Your task to perform on an android device: Do I have any events today? Image 0: 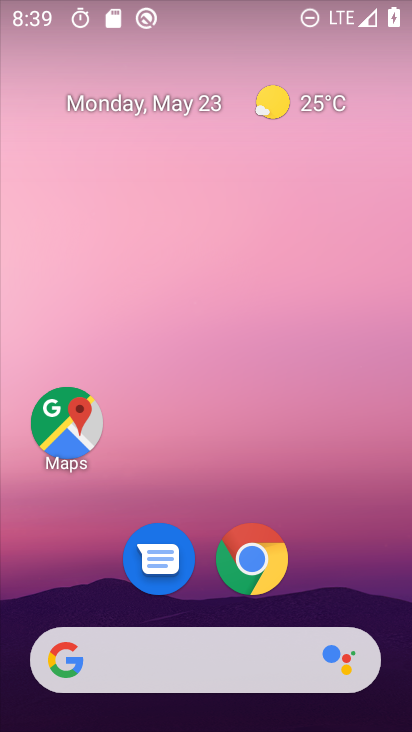
Step 0: drag from (384, 624) to (299, 68)
Your task to perform on an android device: Do I have any events today? Image 1: 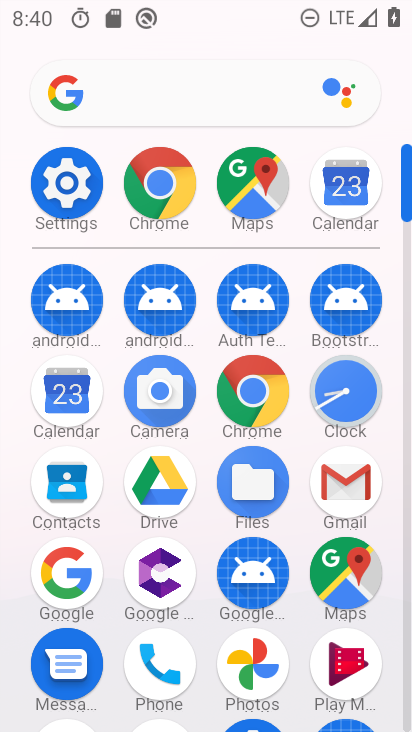
Step 1: click (49, 414)
Your task to perform on an android device: Do I have any events today? Image 2: 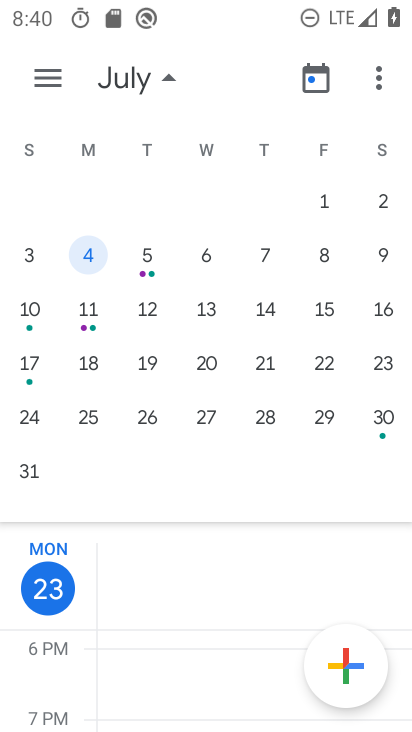
Step 2: drag from (83, 342) to (408, 430)
Your task to perform on an android device: Do I have any events today? Image 3: 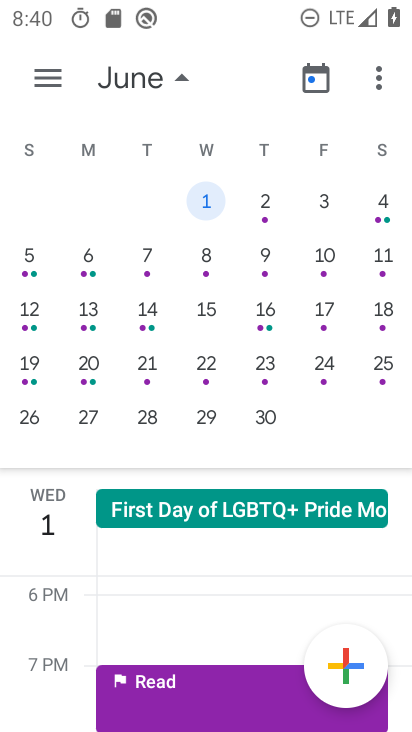
Step 3: drag from (90, 325) to (360, 362)
Your task to perform on an android device: Do I have any events today? Image 4: 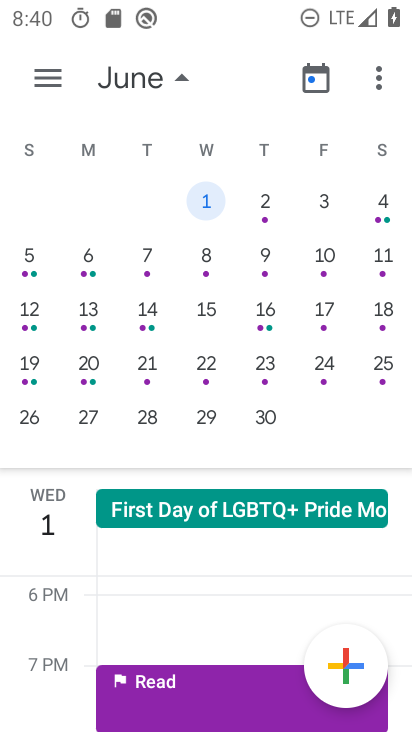
Step 4: drag from (34, 314) to (354, 359)
Your task to perform on an android device: Do I have any events today? Image 5: 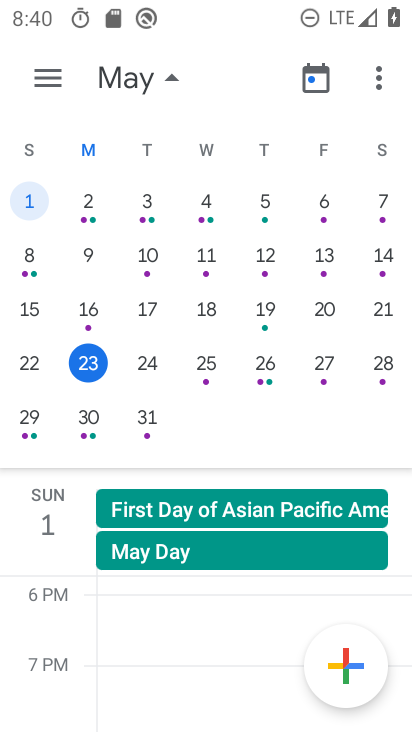
Step 5: click (162, 376)
Your task to perform on an android device: Do I have any events today? Image 6: 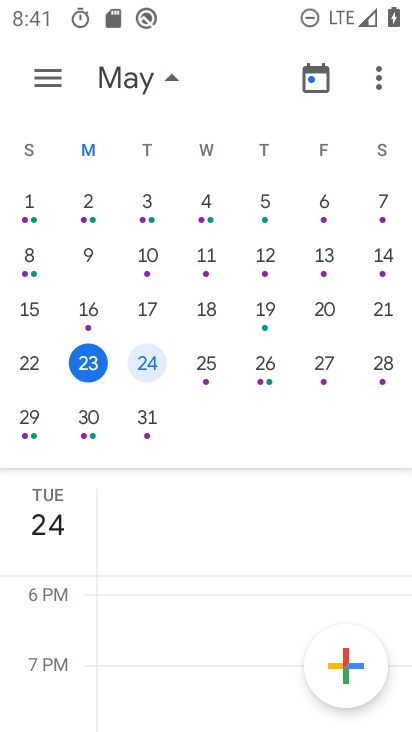
Step 6: task complete